Your task to perform on an android device: Search for "bose soundlink" on target.com, select the first entry, and add it to the cart. Image 0: 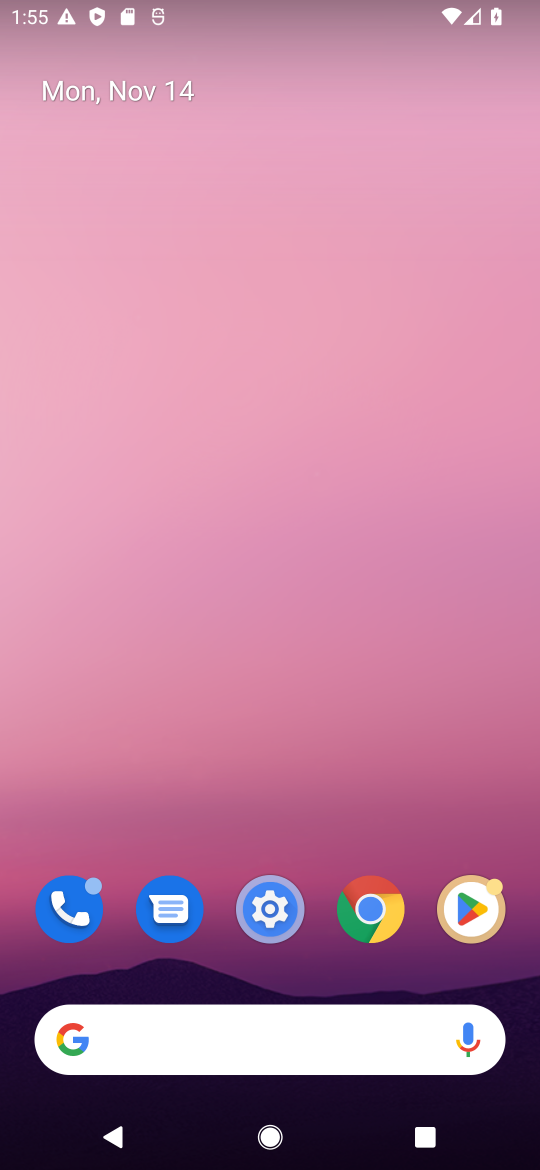
Step 0: click (389, 146)
Your task to perform on an android device: Search for "bose soundlink" on target.com, select the first entry, and add it to the cart. Image 1: 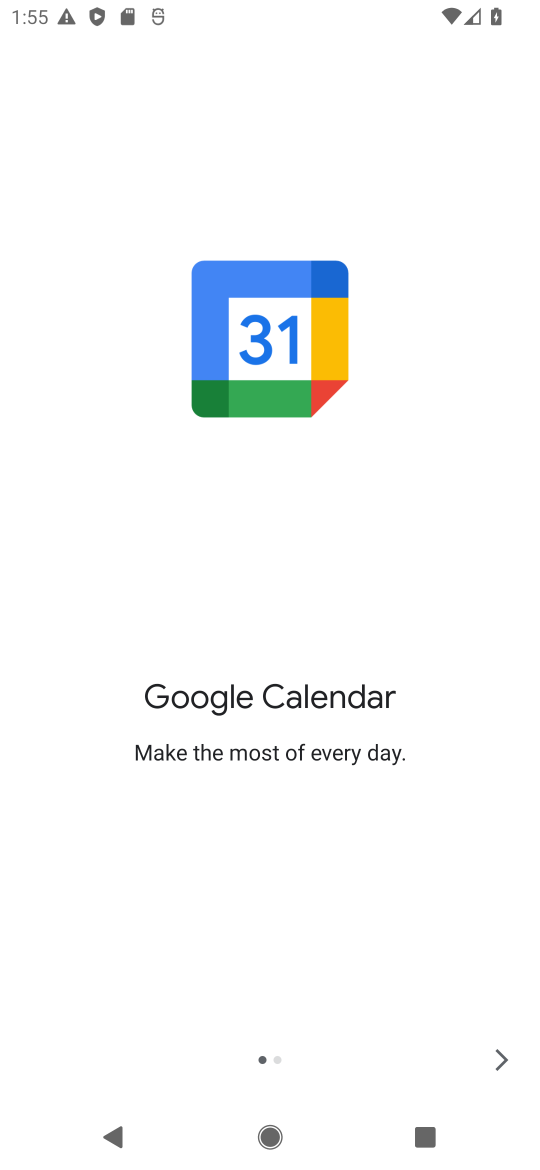
Step 1: press home button
Your task to perform on an android device: Search for "bose soundlink" on target.com, select the first entry, and add it to the cart. Image 2: 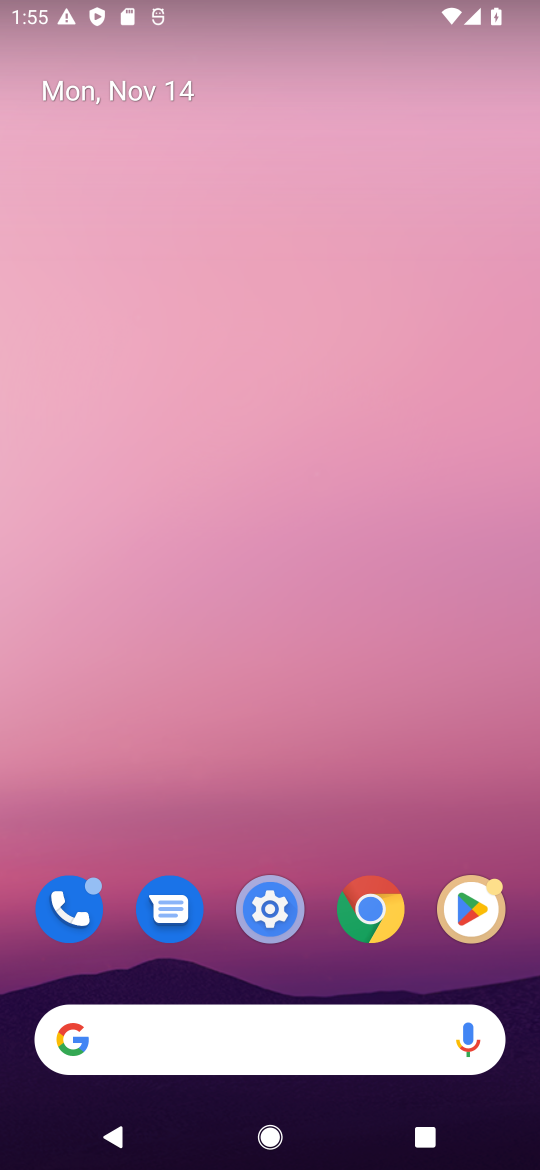
Step 2: drag from (300, 1002) to (388, 110)
Your task to perform on an android device: Search for "bose soundlink" on target.com, select the first entry, and add it to the cart. Image 3: 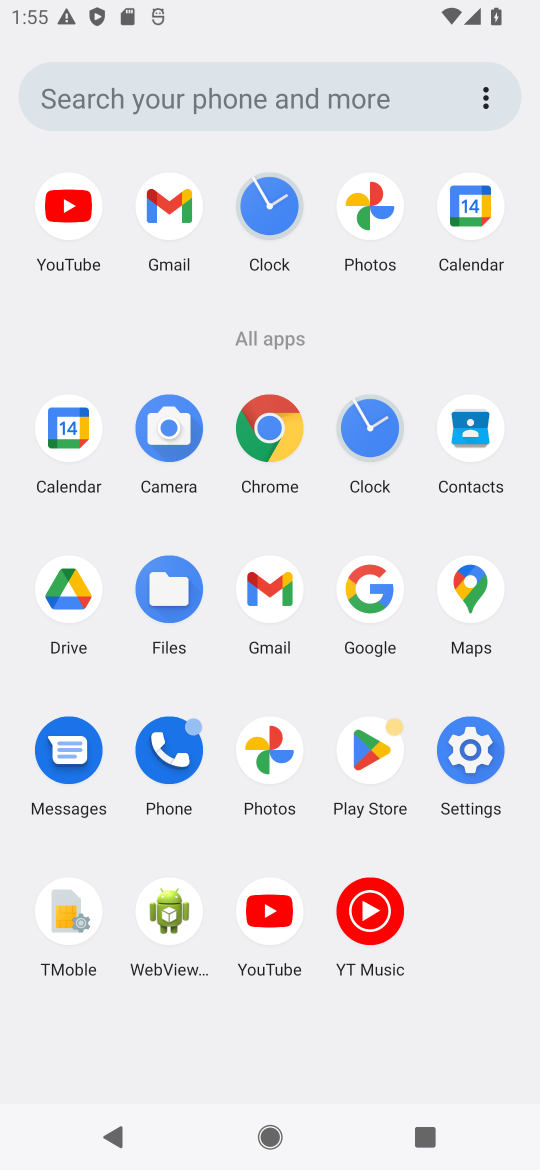
Step 3: click (262, 433)
Your task to perform on an android device: Search for "bose soundlink" on target.com, select the first entry, and add it to the cart. Image 4: 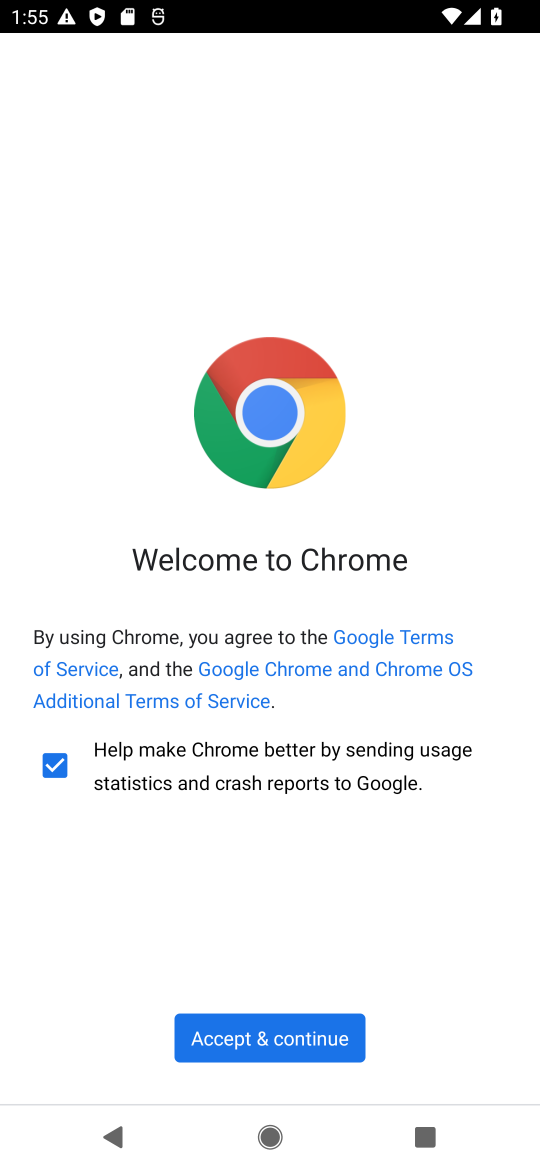
Step 4: click (273, 1006)
Your task to perform on an android device: Search for "bose soundlink" on target.com, select the first entry, and add it to the cart. Image 5: 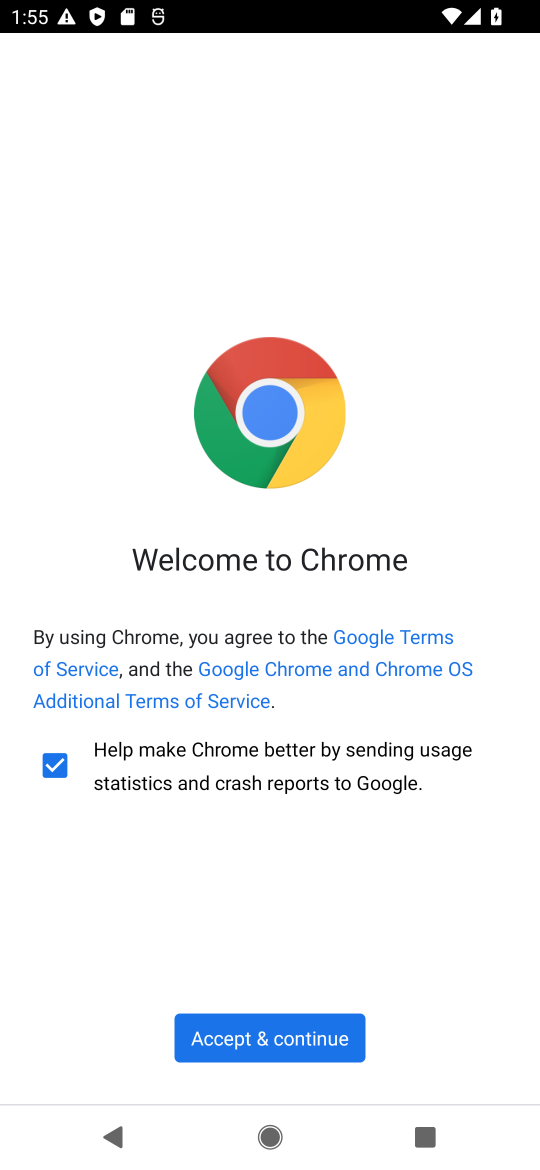
Step 5: click (264, 1029)
Your task to perform on an android device: Search for "bose soundlink" on target.com, select the first entry, and add it to the cart. Image 6: 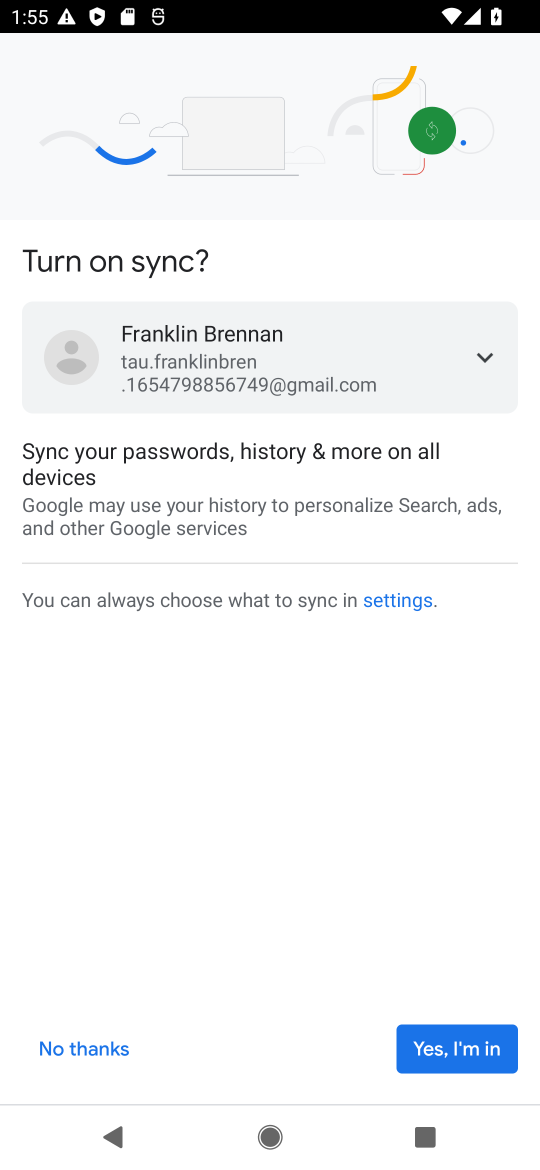
Step 6: click (477, 1057)
Your task to perform on an android device: Search for "bose soundlink" on target.com, select the first entry, and add it to the cart. Image 7: 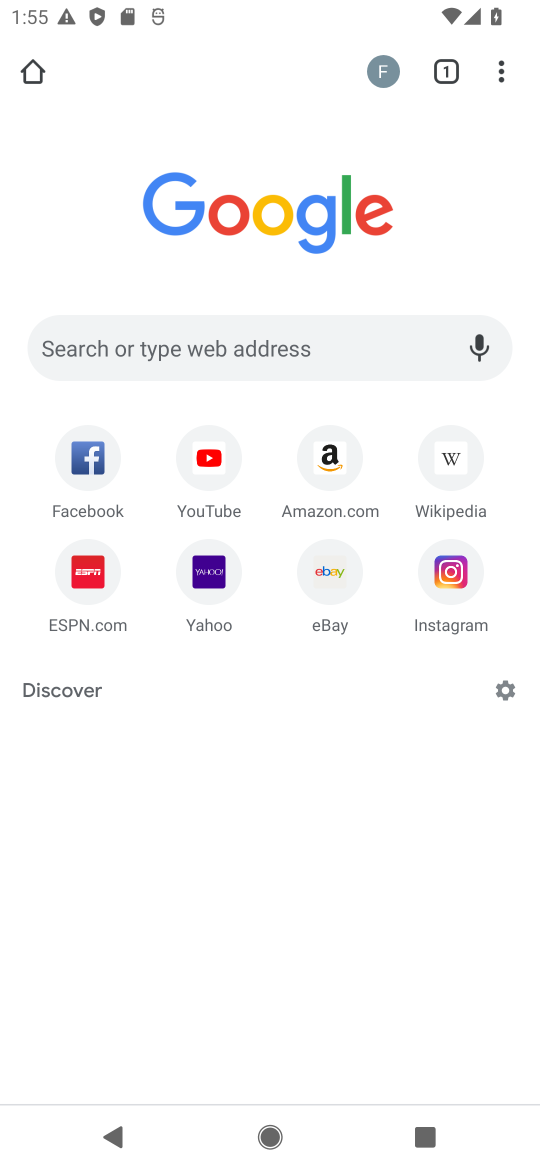
Step 7: click (234, 337)
Your task to perform on an android device: Search for "bose soundlink" on target.com, select the first entry, and add it to the cart. Image 8: 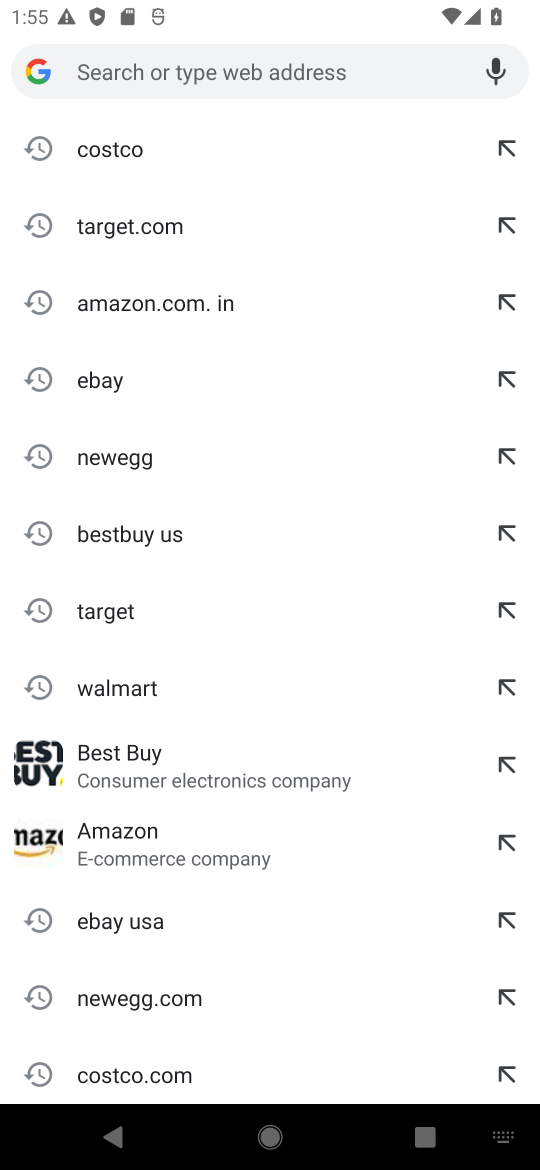
Step 8: type "target.com"
Your task to perform on an android device: Search for "bose soundlink" on target.com, select the first entry, and add it to the cart. Image 9: 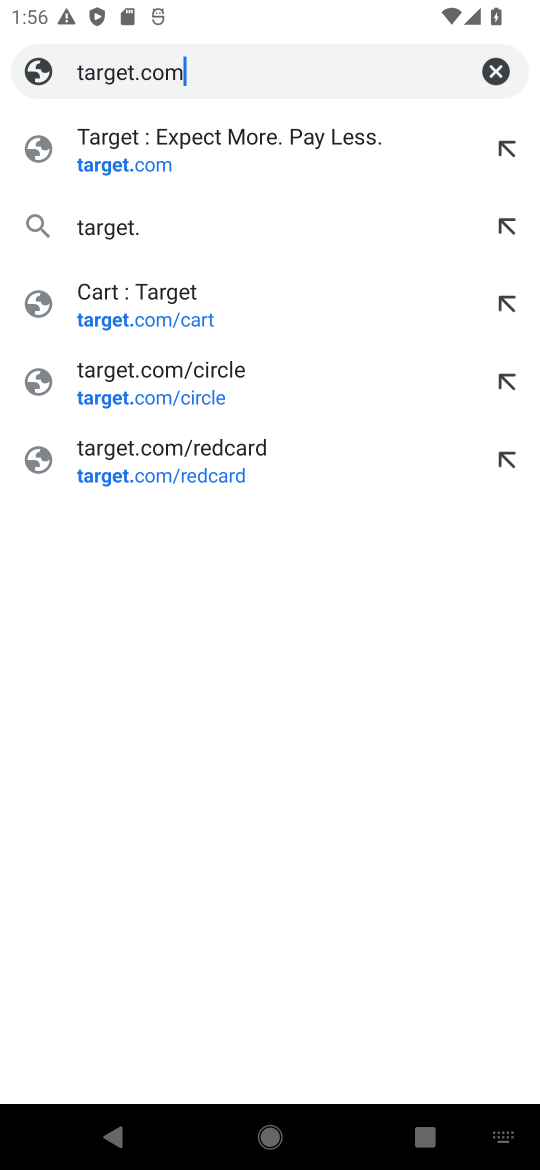
Step 9: press enter
Your task to perform on an android device: Search for "bose soundlink" on target.com, select the first entry, and add it to the cart. Image 10: 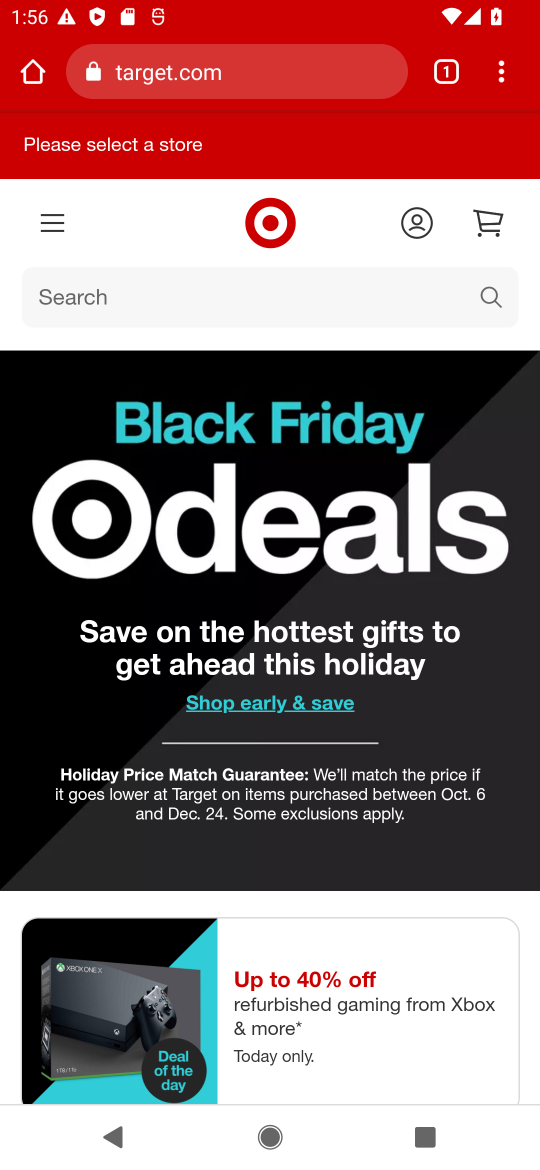
Step 10: click (286, 299)
Your task to perform on an android device: Search for "bose soundlink" on target.com, select the first entry, and add it to the cart. Image 11: 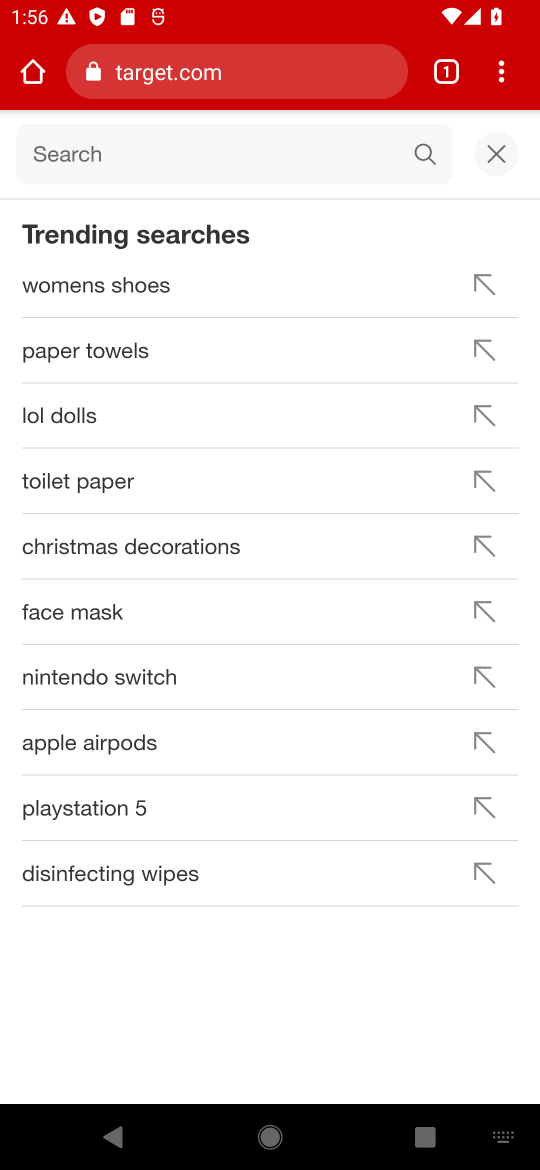
Step 11: type "bose soundliink"
Your task to perform on an android device: Search for "bose soundlink" on target.com, select the first entry, and add it to the cart. Image 12: 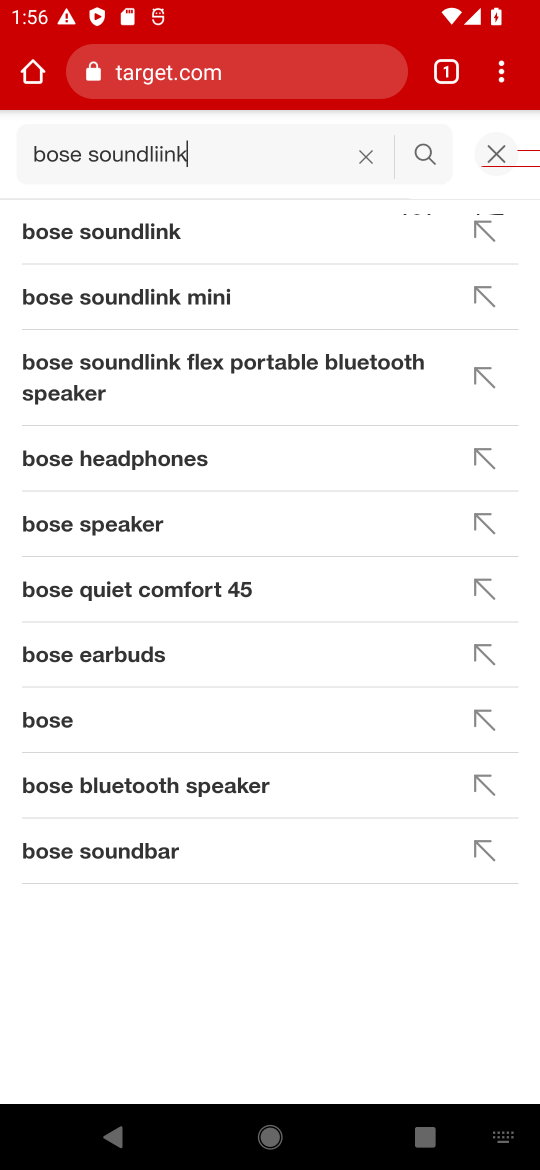
Step 12: press enter
Your task to perform on an android device: Search for "bose soundlink" on target.com, select the first entry, and add it to the cart. Image 13: 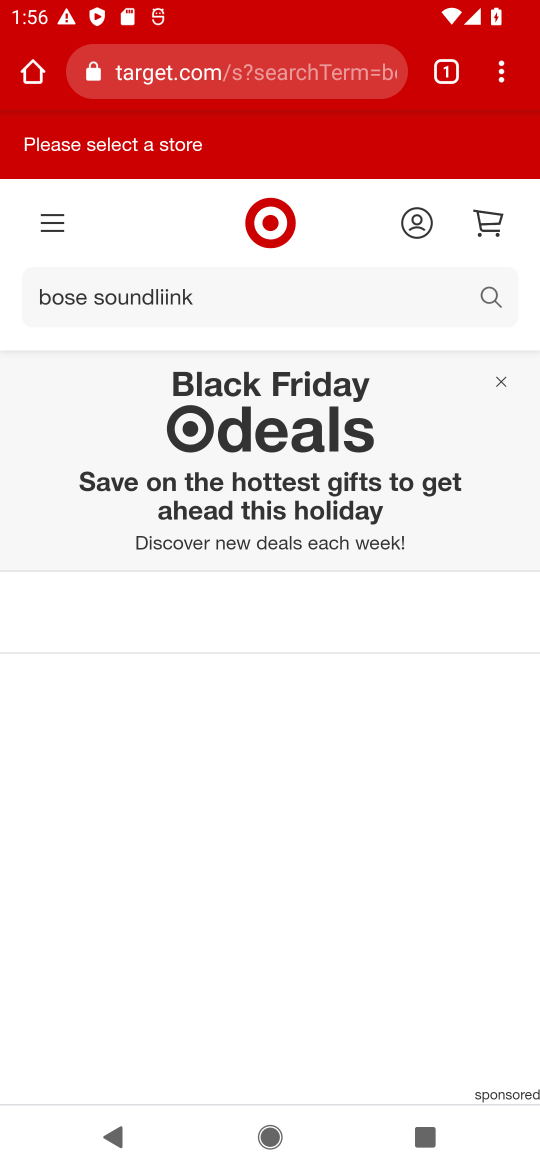
Step 13: drag from (314, 843) to (382, 70)
Your task to perform on an android device: Search for "bose soundlink" on target.com, select the first entry, and add it to the cart. Image 14: 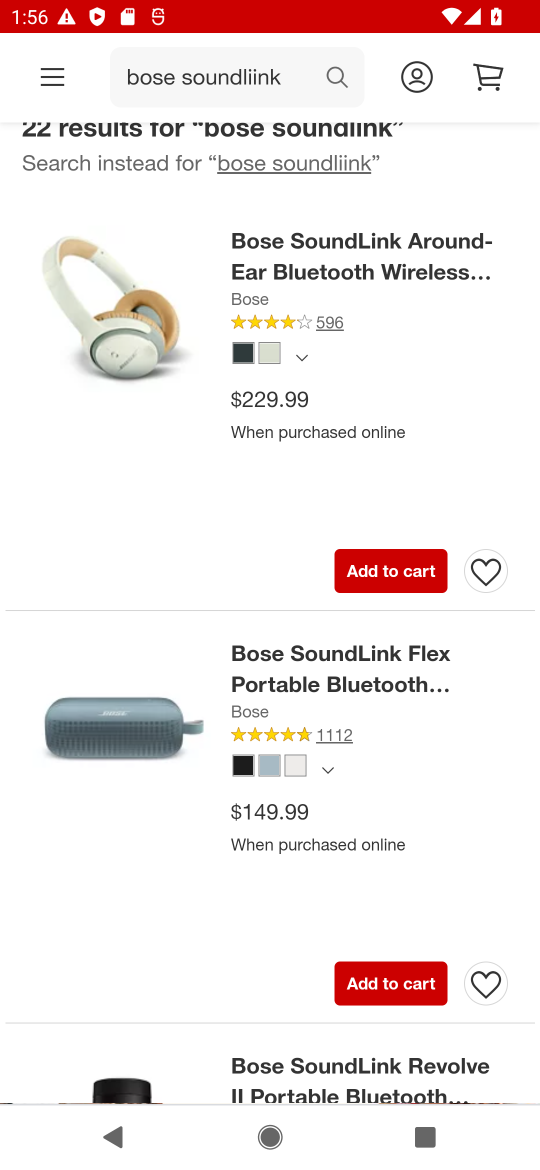
Step 14: drag from (370, 405) to (367, 462)
Your task to perform on an android device: Search for "bose soundlink" on target.com, select the first entry, and add it to the cart. Image 15: 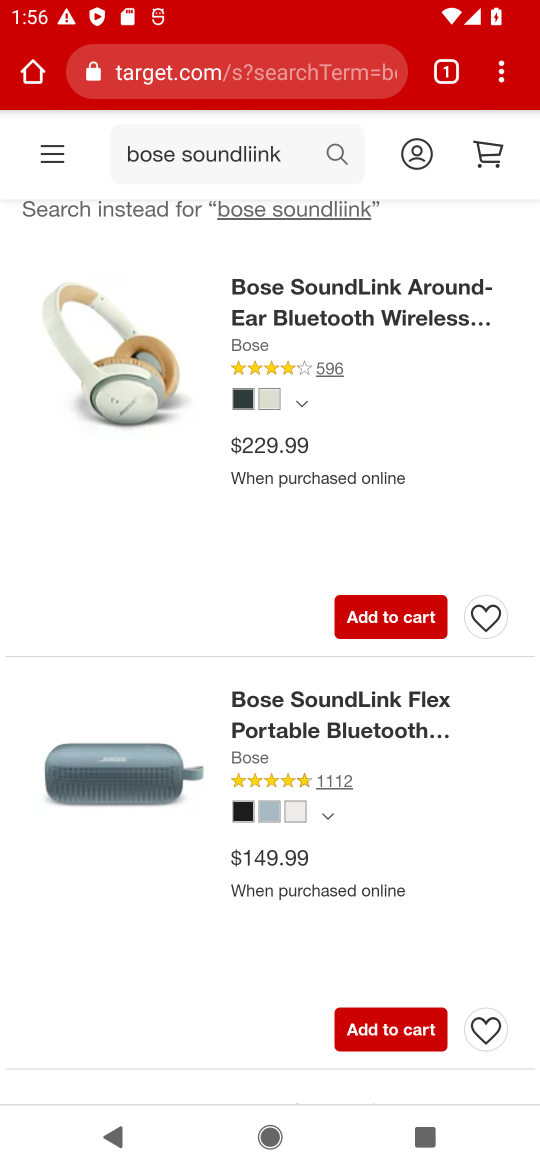
Step 15: drag from (366, 425) to (334, 896)
Your task to perform on an android device: Search for "bose soundlink" on target.com, select the first entry, and add it to the cart. Image 16: 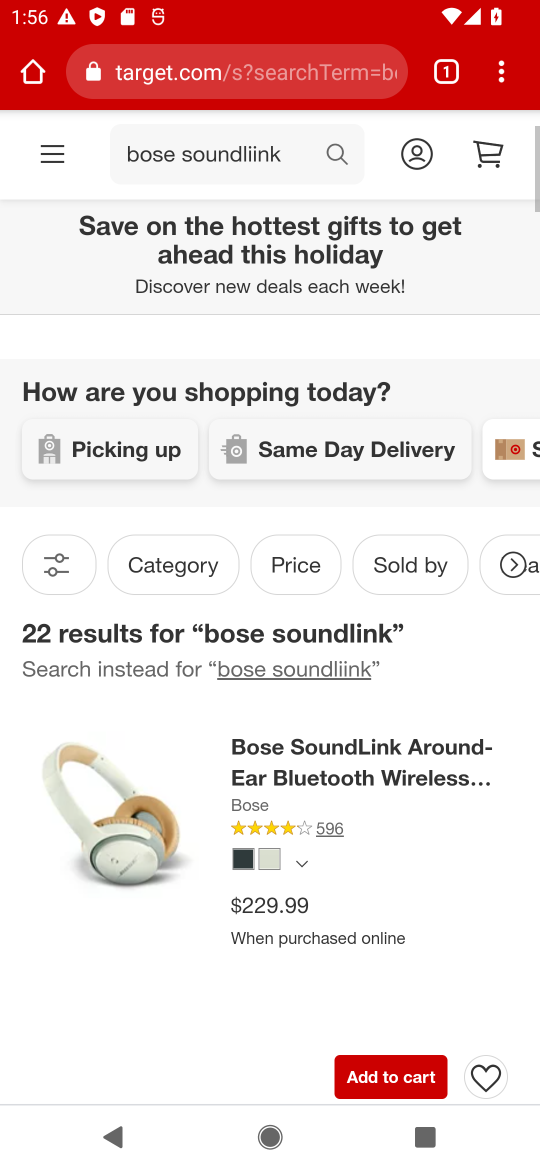
Step 16: drag from (319, 821) to (373, 427)
Your task to perform on an android device: Search for "bose soundlink" on target.com, select the first entry, and add it to the cart. Image 17: 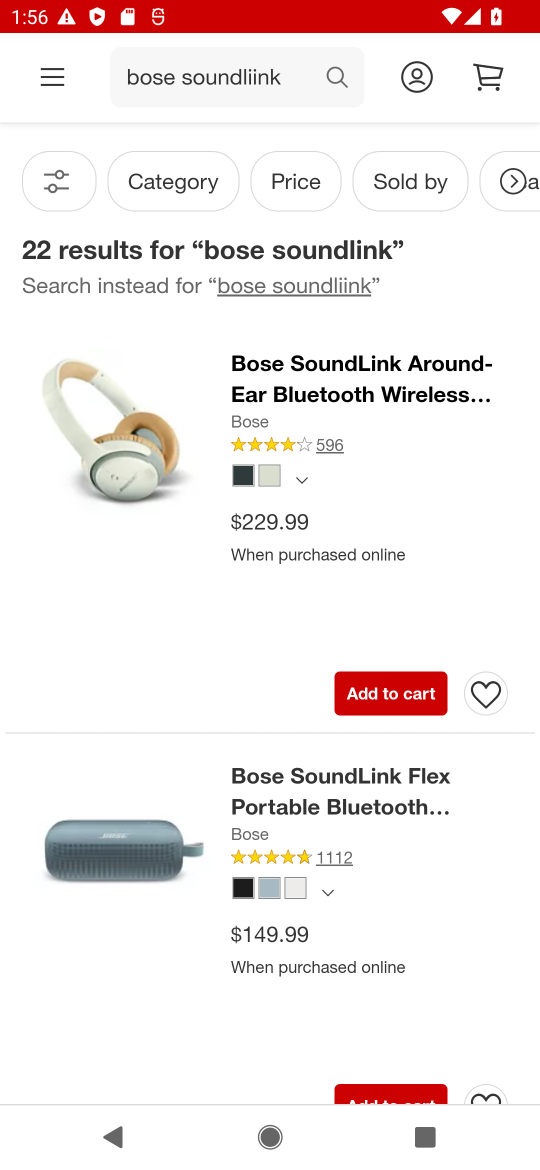
Step 17: click (394, 698)
Your task to perform on an android device: Search for "bose soundlink" on target.com, select the first entry, and add it to the cart. Image 18: 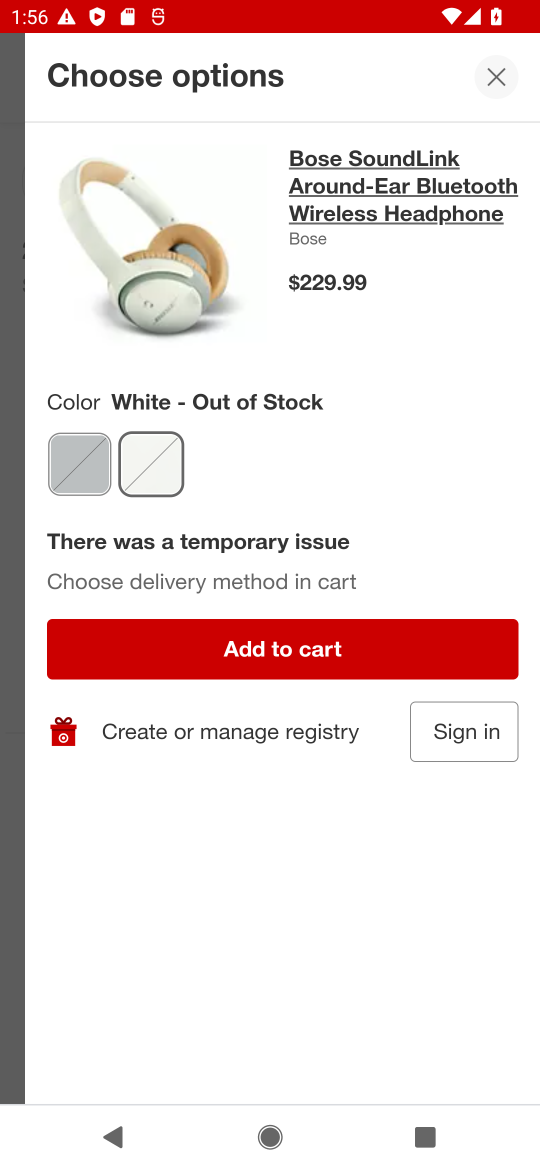
Step 18: click (394, 656)
Your task to perform on an android device: Search for "bose soundlink" on target.com, select the first entry, and add it to the cart. Image 19: 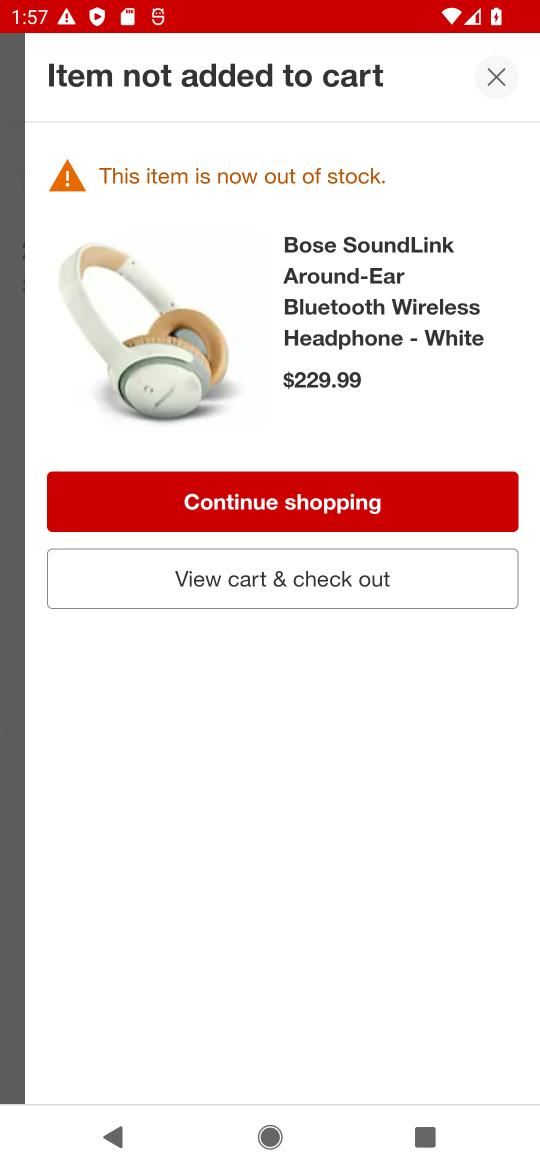
Step 19: click (337, 579)
Your task to perform on an android device: Search for "bose soundlink" on target.com, select the first entry, and add it to the cart. Image 20: 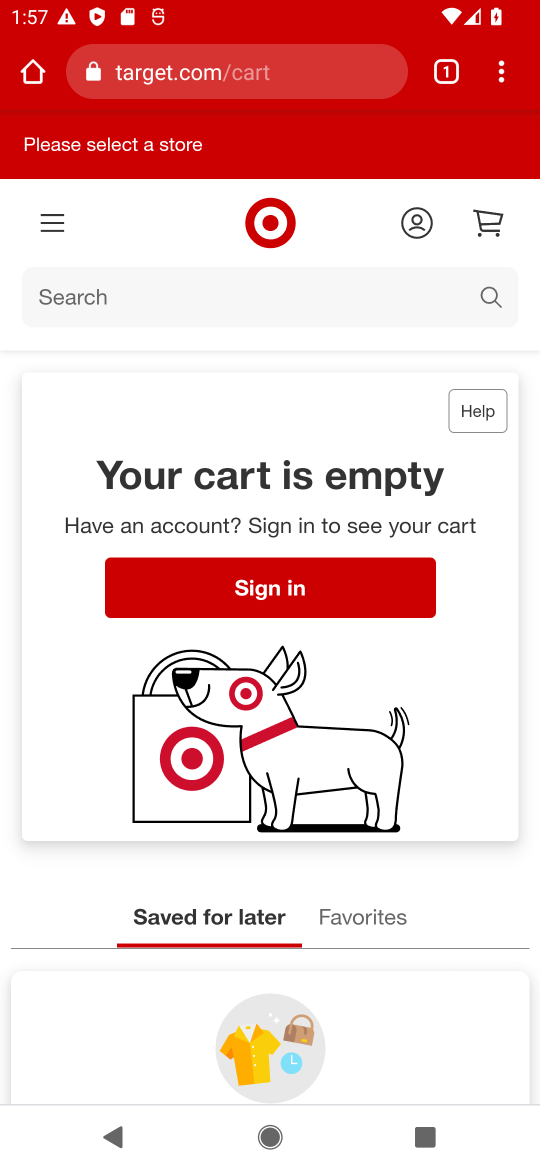
Step 20: task complete